Your task to perform on an android device: turn on the 12-hour format for clock Image 0: 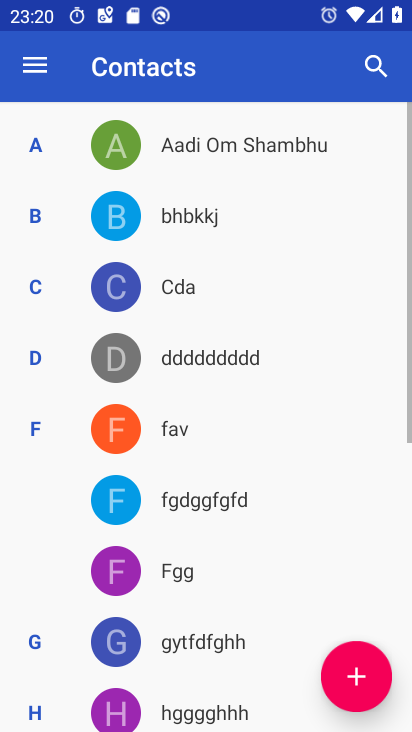
Step 0: press home button
Your task to perform on an android device: turn on the 12-hour format for clock Image 1: 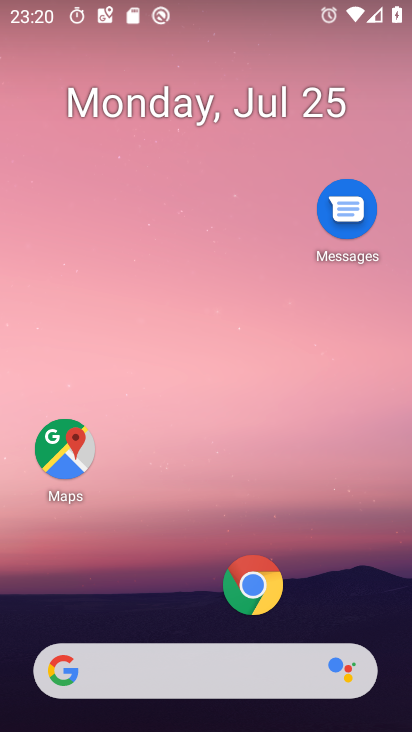
Step 1: drag from (181, 645) to (336, 97)
Your task to perform on an android device: turn on the 12-hour format for clock Image 2: 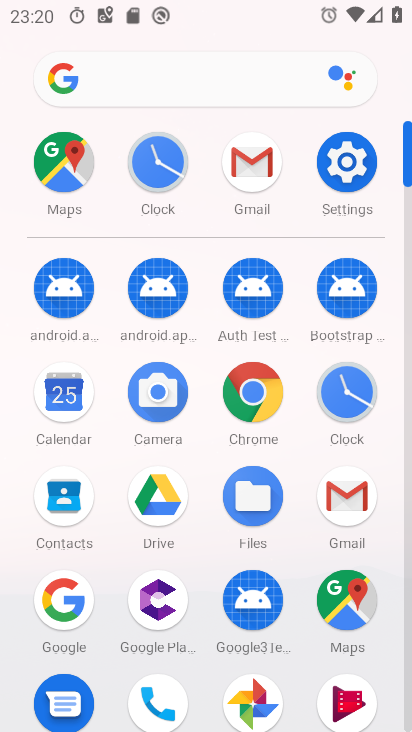
Step 2: click (349, 397)
Your task to perform on an android device: turn on the 12-hour format for clock Image 3: 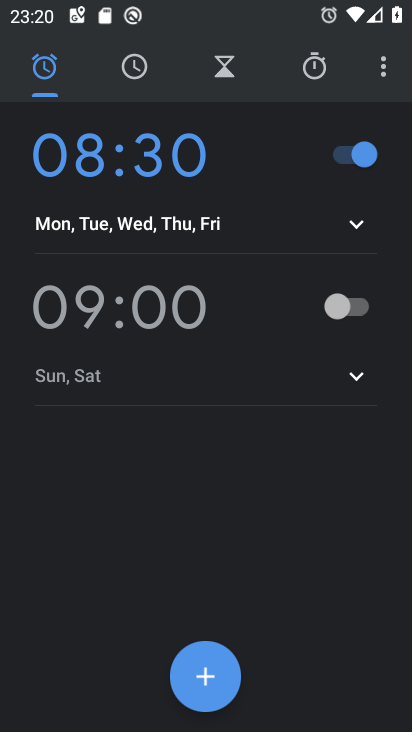
Step 3: click (380, 68)
Your task to perform on an android device: turn on the 12-hour format for clock Image 4: 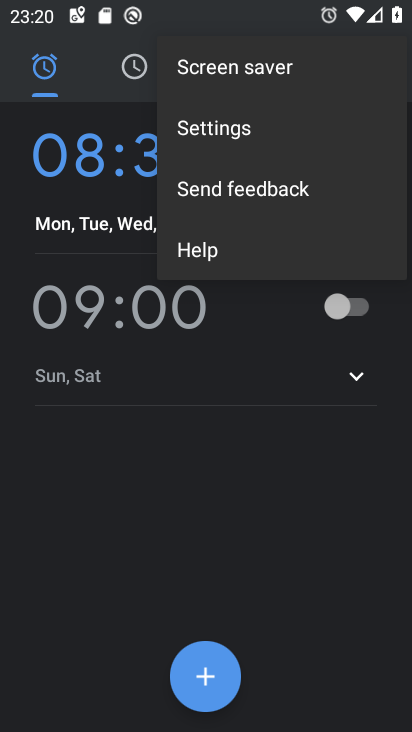
Step 4: click (234, 130)
Your task to perform on an android device: turn on the 12-hour format for clock Image 5: 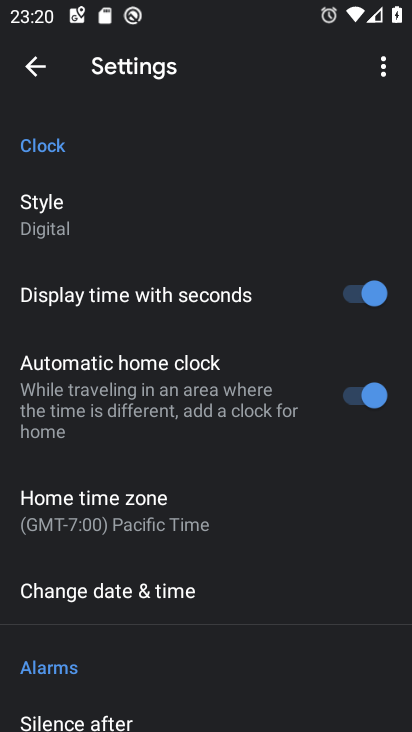
Step 5: drag from (271, 610) to (311, 238)
Your task to perform on an android device: turn on the 12-hour format for clock Image 6: 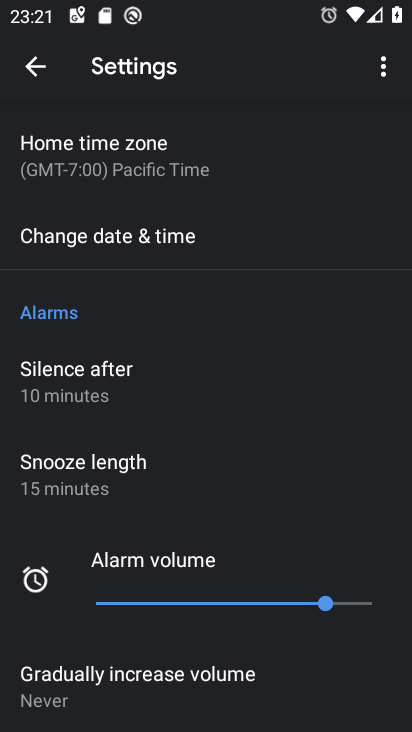
Step 6: click (167, 240)
Your task to perform on an android device: turn on the 12-hour format for clock Image 7: 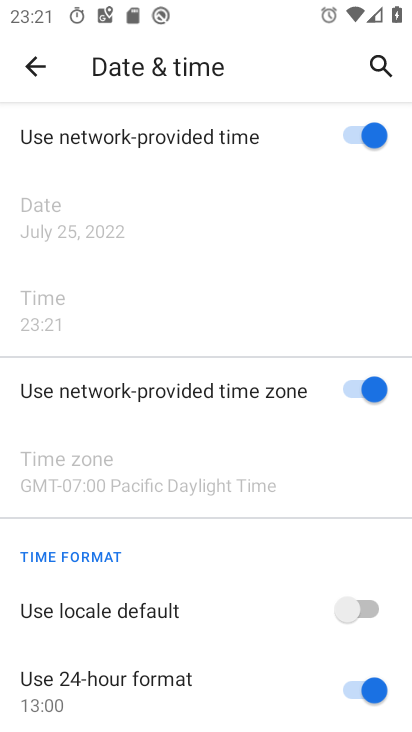
Step 7: click (364, 614)
Your task to perform on an android device: turn on the 12-hour format for clock Image 8: 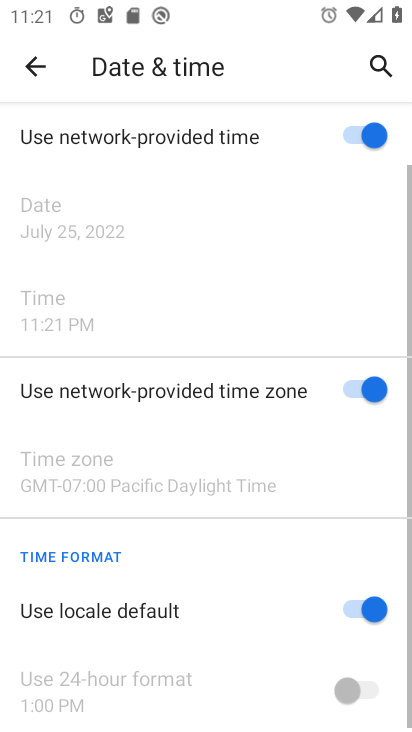
Step 8: task complete